Your task to perform on an android device: Go to location settings Image 0: 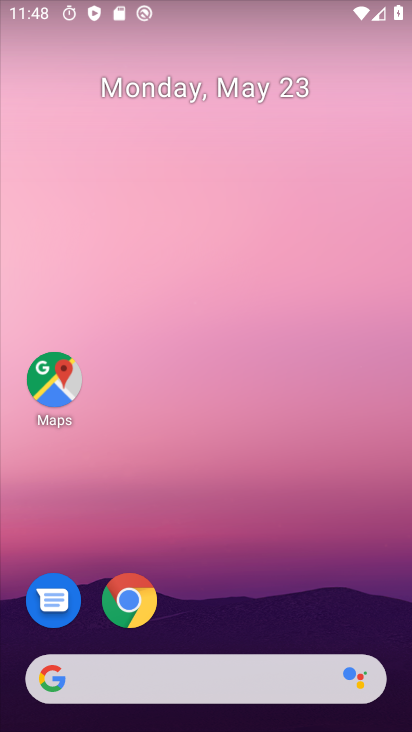
Step 0: drag from (282, 572) to (260, 118)
Your task to perform on an android device: Go to location settings Image 1: 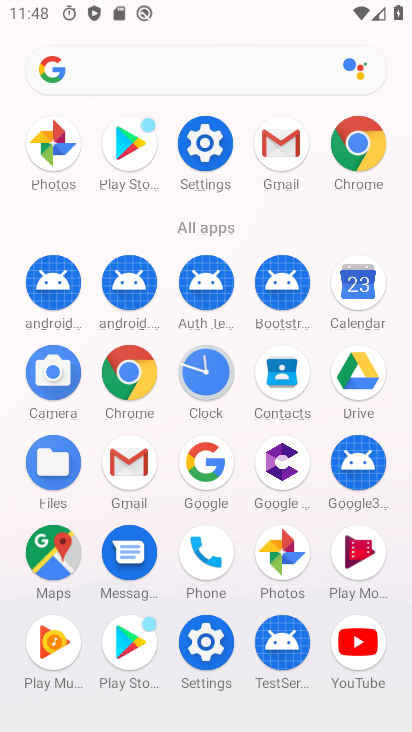
Step 1: click (213, 139)
Your task to perform on an android device: Go to location settings Image 2: 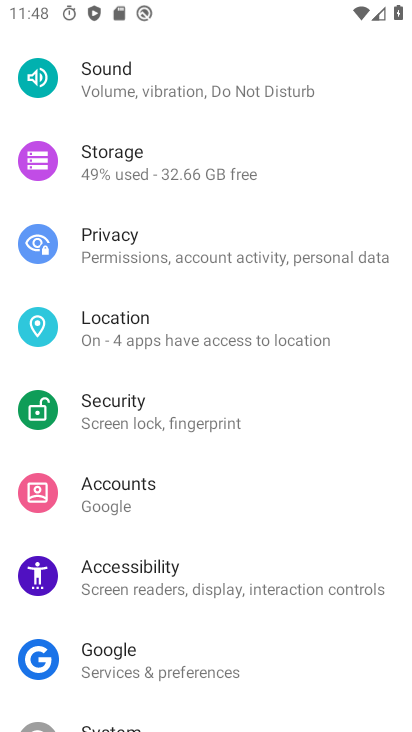
Step 2: click (153, 334)
Your task to perform on an android device: Go to location settings Image 3: 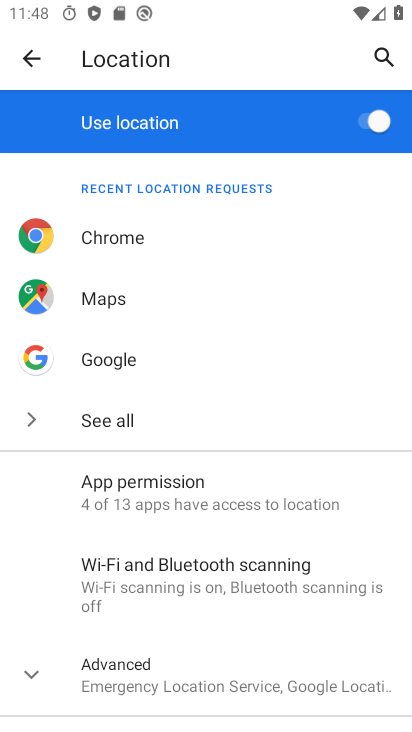
Step 3: task complete